Your task to perform on an android device: turn notification dots on Image 0: 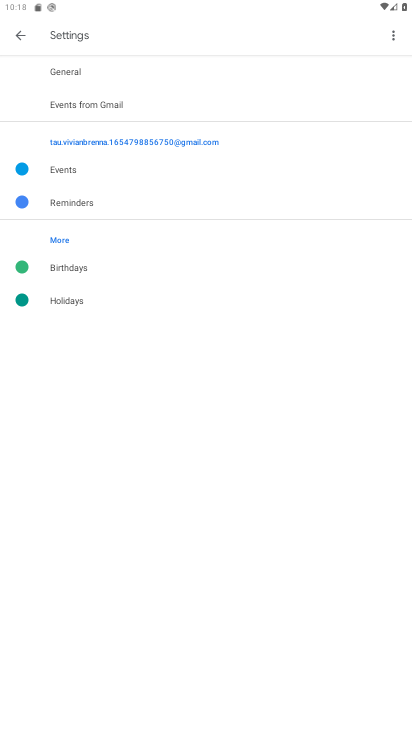
Step 0: press home button
Your task to perform on an android device: turn notification dots on Image 1: 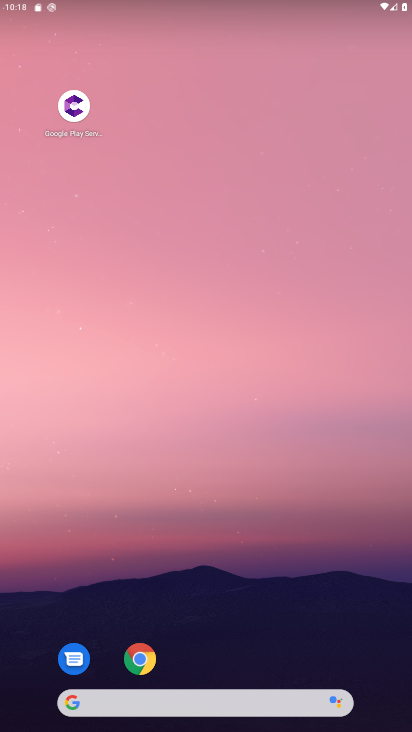
Step 1: drag from (251, 581) to (138, 128)
Your task to perform on an android device: turn notification dots on Image 2: 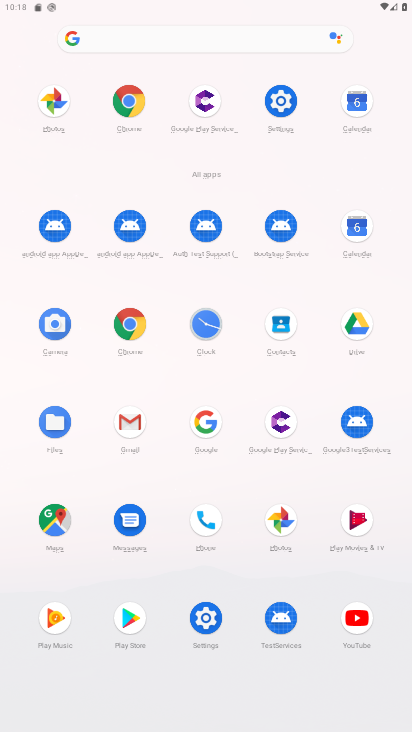
Step 2: click (285, 103)
Your task to perform on an android device: turn notification dots on Image 3: 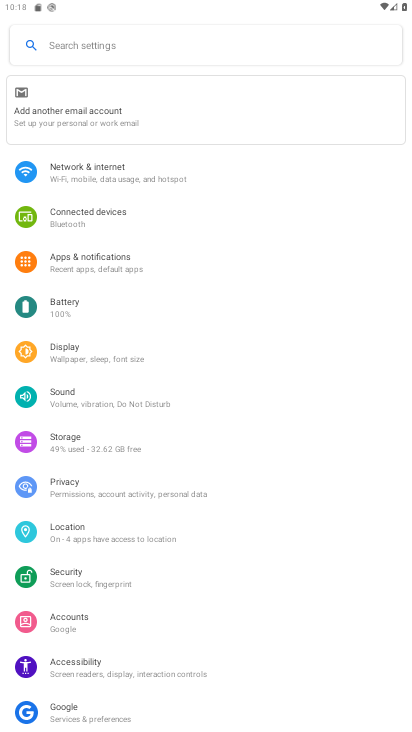
Step 3: click (99, 251)
Your task to perform on an android device: turn notification dots on Image 4: 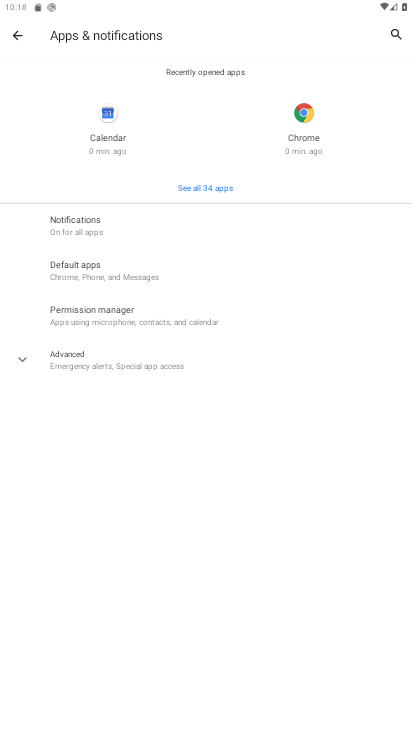
Step 4: click (74, 221)
Your task to perform on an android device: turn notification dots on Image 5: 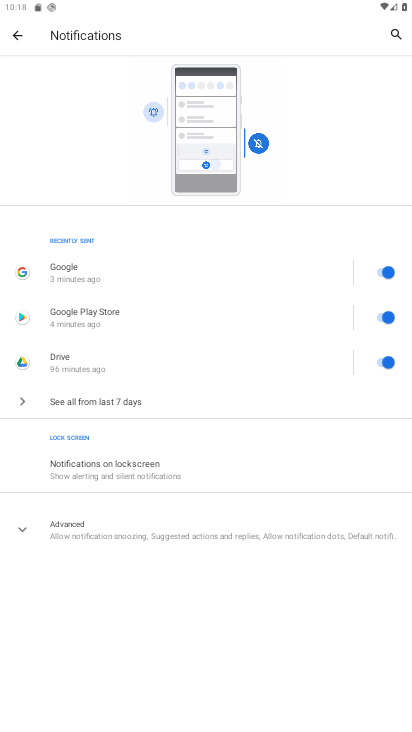
Step 5: click (28, 532)
Your task to perform on an android device: turn notification dots on Image 6: 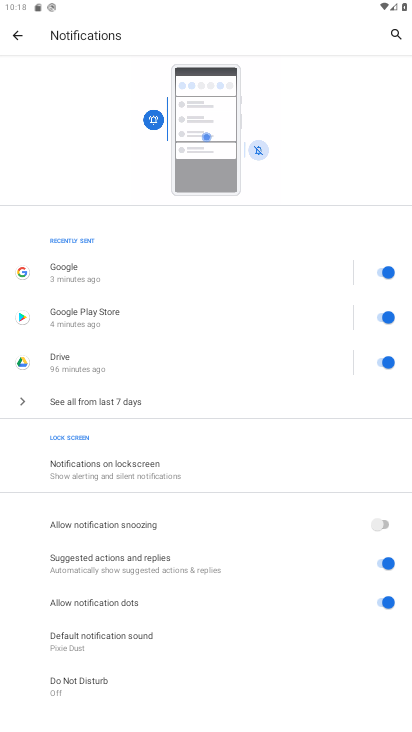
Step 6: task complete